Your task to perform on an android device: Go to Google Image 0: 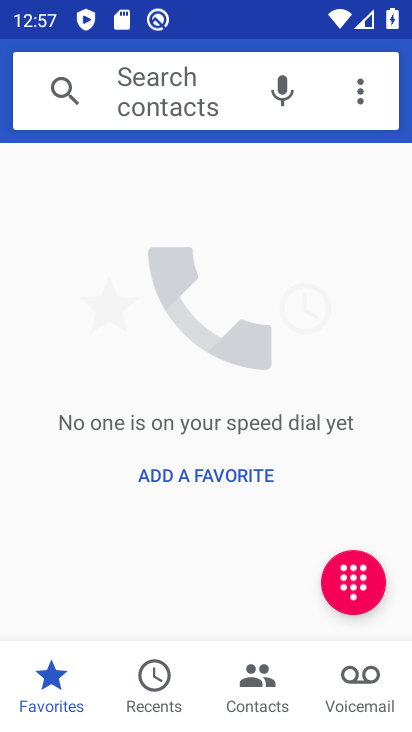
Step 0: press home button
Your task to perform on an android device: Go to Google Image 1: 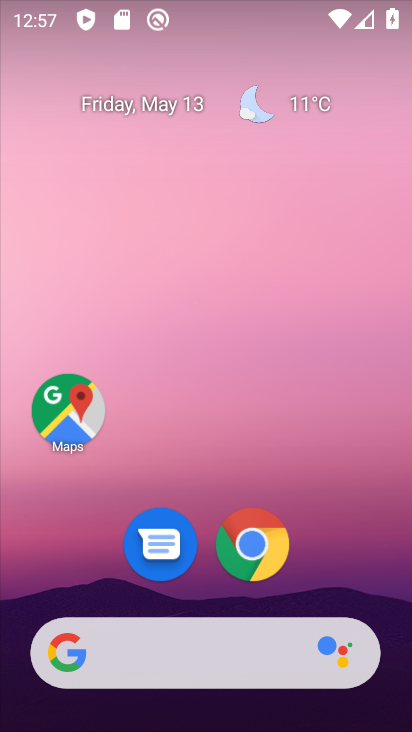
Step 1: click (251, 541)
Your task to perform on an android device: Go to Google Image 2: 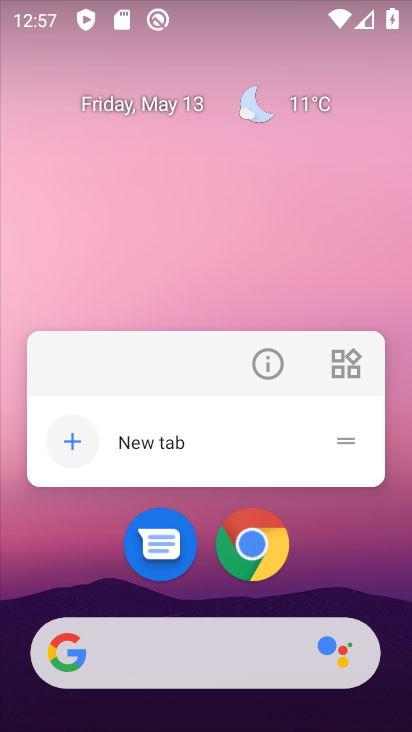
Step 2: drag from (94, 527) to (140, 158)
Your task to perform on an android device: Go to Google Image 3: 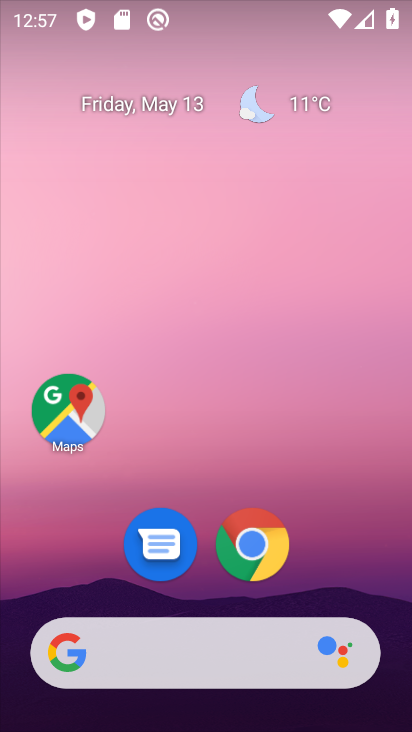
Step 3: drag from (85, 549) to (125, 194)
Your task to perform on an android device: Go to Google Image 4: 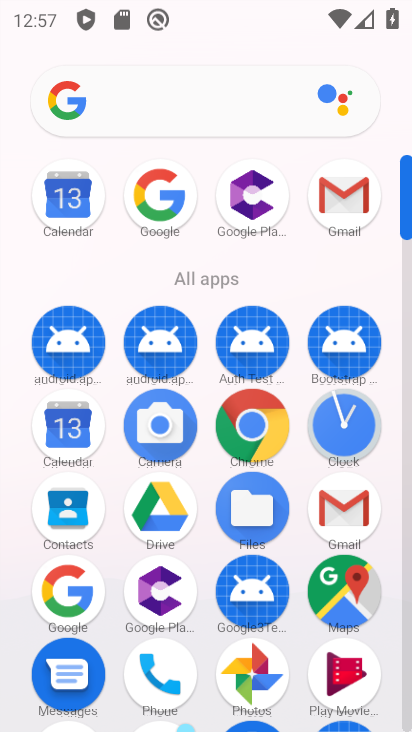
Step 4: click (63, 586)
Your task to perform on an android device: Go to Google Image 5: 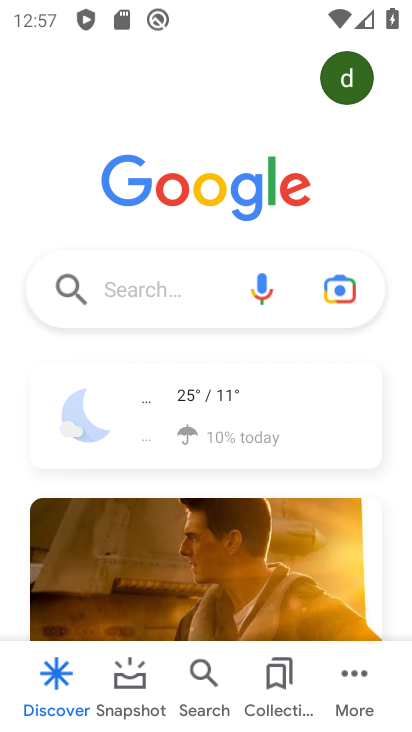
Step 5: task complete